Your task to perform on an android device: Go to Yahoo.com Image 0: 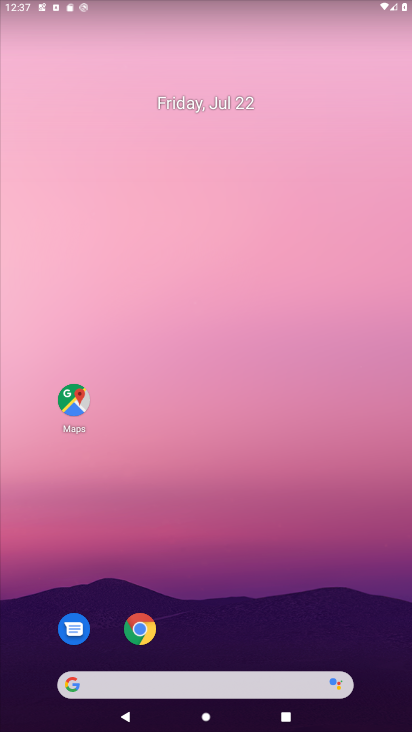
Step 0: drag from (248, 573) to (249, 184)
Your task to perform on an android device: Go to Yahoo.com Image 1: 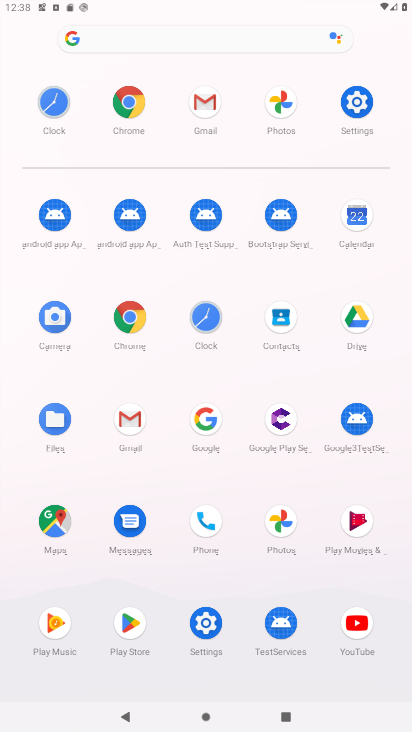
Step 1: drag from (243, 179) to (244, 99)
Your task to perform on an android device: Go to Yahoo.com Image 2: 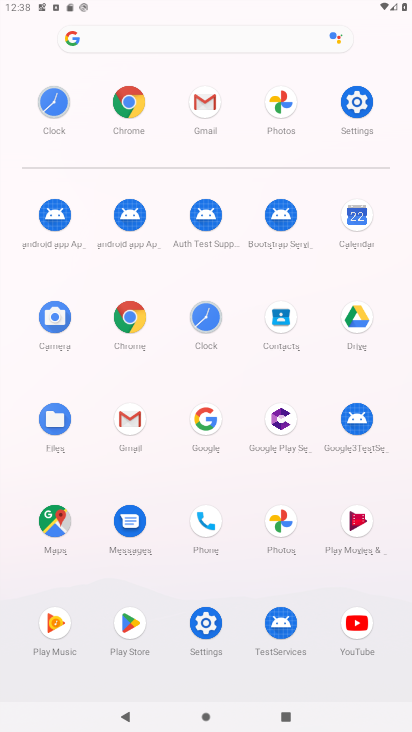
Step 2: click (138, 338)
Your task to perform on an android device: Go to Yahoo.com Image 3: 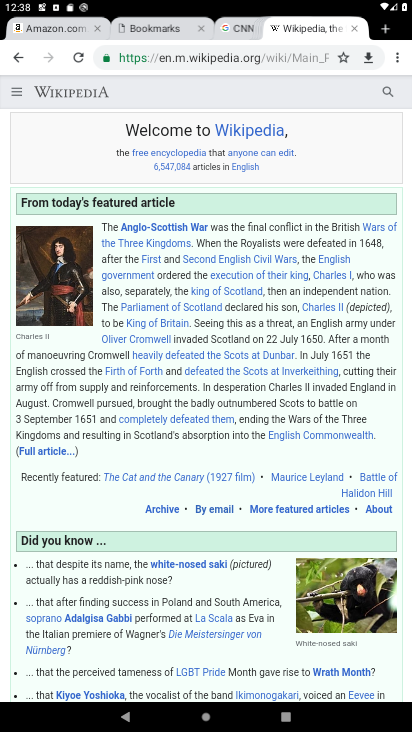
Step 3: click (377, 31)
Your task to perform on an android device: Go to Yahoo.com Image 4: 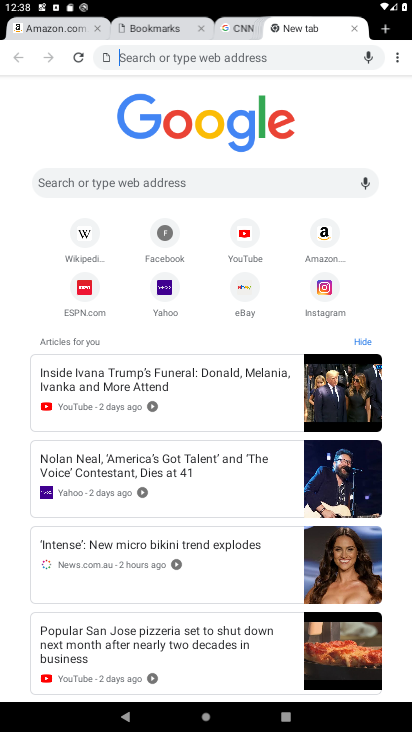
Step 4: click (173, 300)
Your task to perform on an android device: Go to Yahoo.com Image 5: 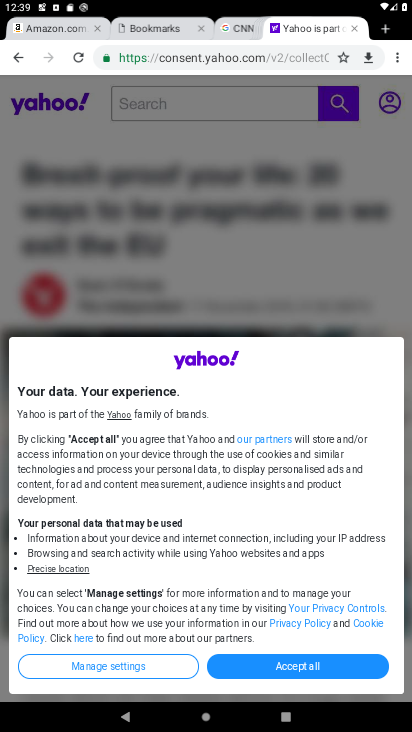
Step 5: click (276, 677)
Your task to perform on an android device: Go to Yahoo.com Image 6: 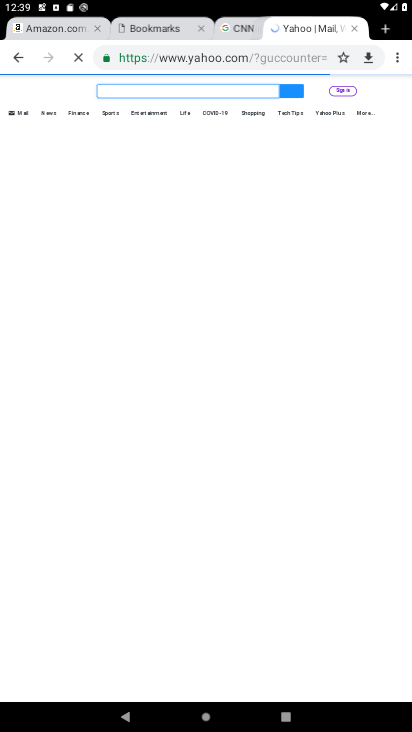
Step 6: task complete